Your task to perform on an android device: Search for sushi restaurants on Maps Image 0: 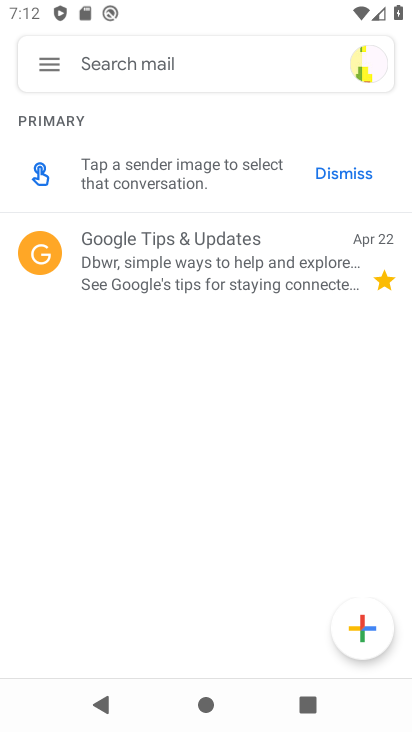
Step 0: press home button
Your task to perform on an android device: Search for sushi restaurants on Maps Image 1: 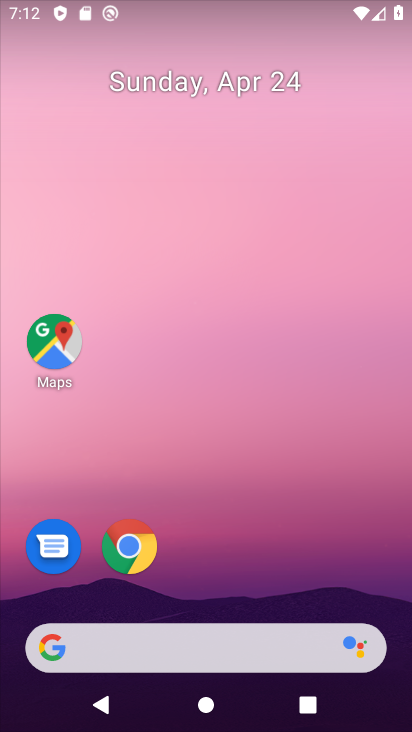
Step 1: click (50, 342)
Your task to perform on an android device: Search for sushi restaurants on Maps Image 2: 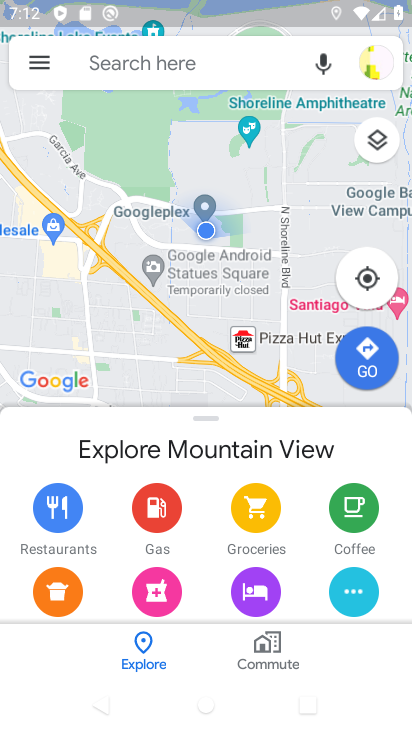
Step 2: click (131, 62)
Your task to perform on an android device: Search for sushi restaurants on Maps Image 3: 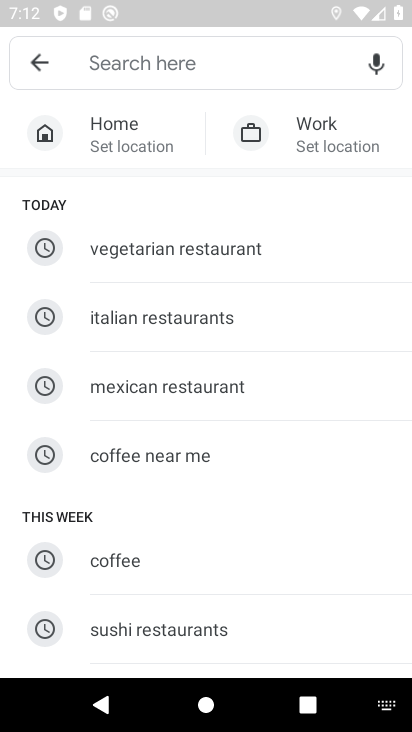
Step 3: click (146, 624)
Your task to perform on an android device: Search for sushi restaurants on Maps Image 4: 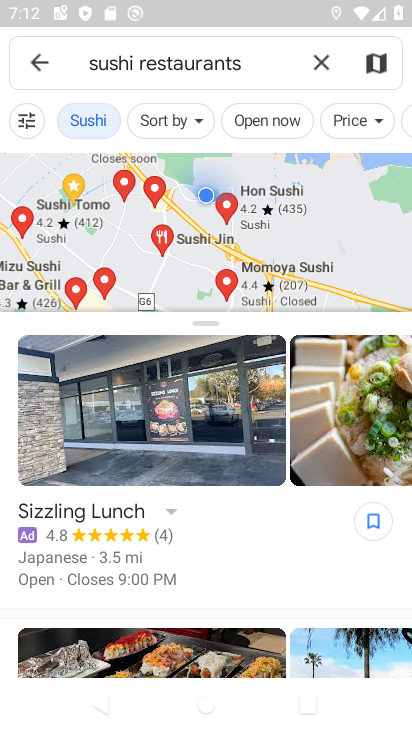
Step 4: task complete